Your task to perform on an android device: Open calendar and show me the fourth week of next month Image 0: 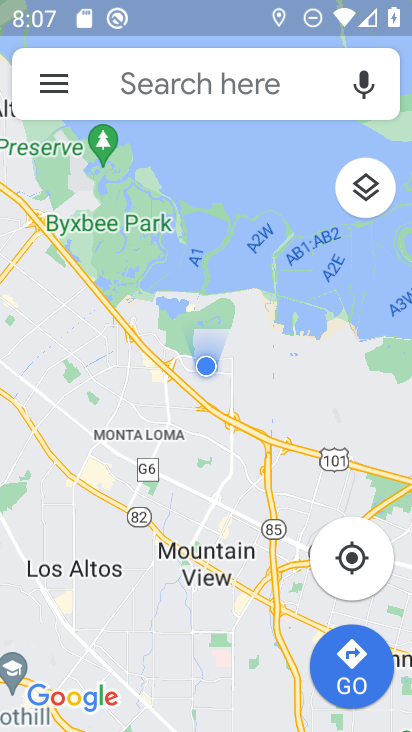
Step 0: press back button
Your task to perform on an android device: Open calendar and show me the fourth week of next month Image 1: 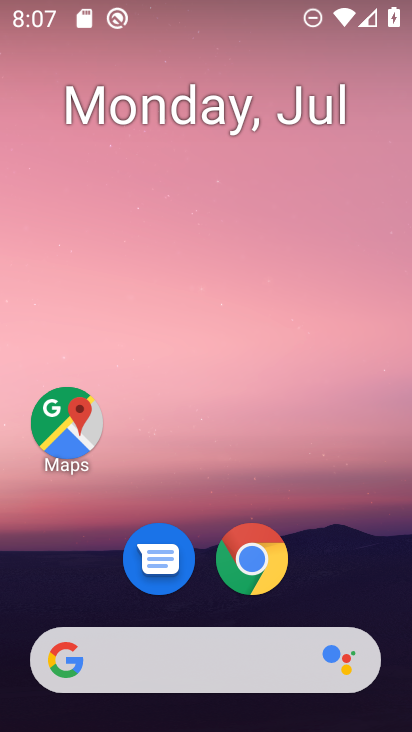
Step 1: drag from (88, 519) to (238, 2)
Your task to perform on an android device: Open calendar and show me the fourth week of next month Image 2: 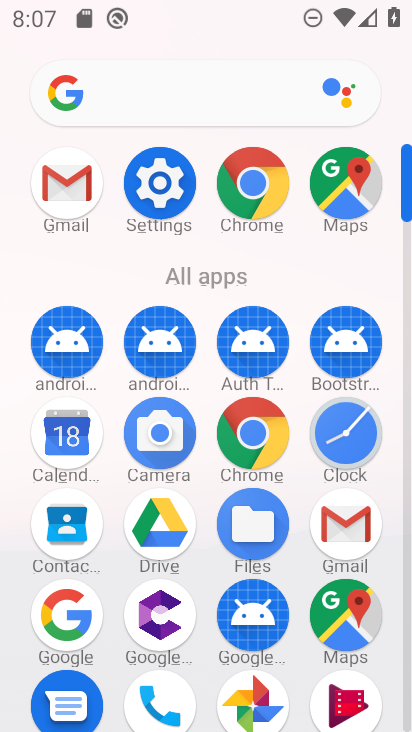
Step 2: click (77, 426)
Your task to perform on an android device: Open calendar and show me the fourth week of next month Image 3: 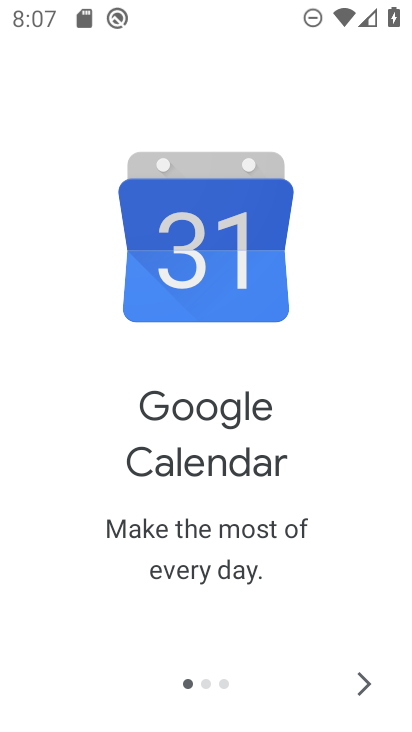
Step 3: click (367, 695)
Your task to perform on an android device: Open calendar and show me the fourth week of next month Image 4: 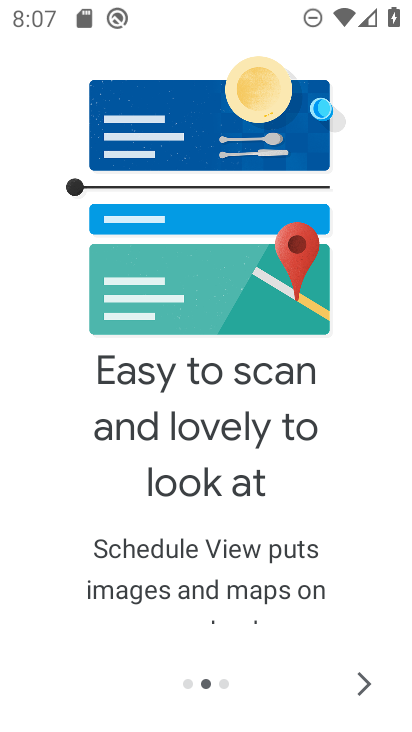
Step 4: click (366, 694)
Your task to perform on an android device: Open calendar and show me the fourth week of next month Image 5: 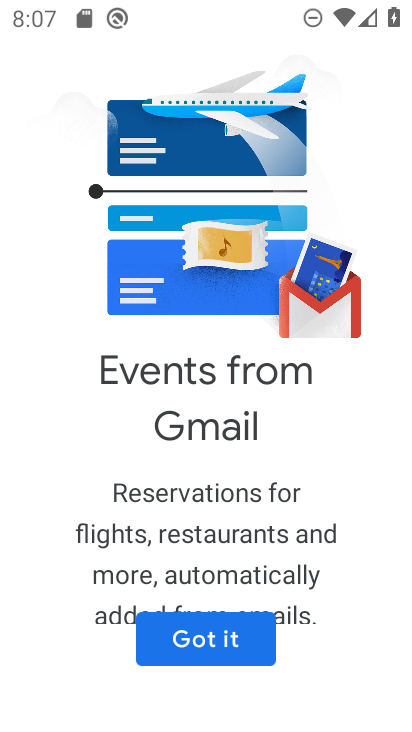
Step 5: click (248, 643)
Your task to perform on an android device: Open calendar and show me the fourth week of next month Image 6: 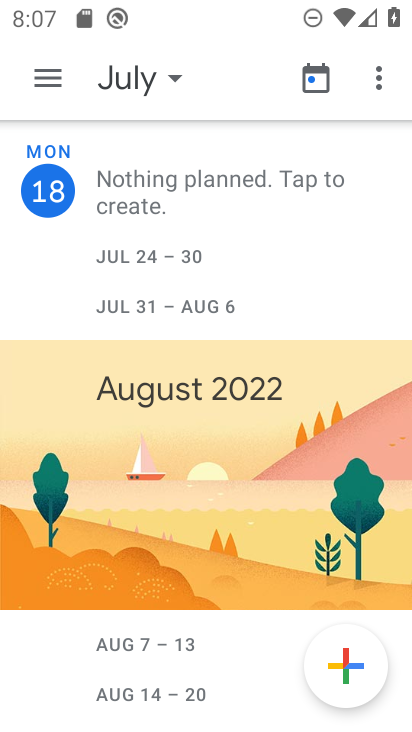
Step 6: click (148, 86)
Your task to perform on an android device: Open calendar and show me the fourth week of next month Image 7: 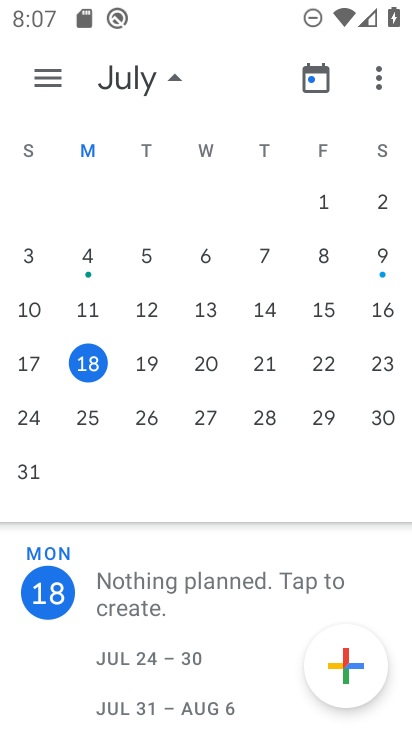
Step 7: drag from (368, 331) to (8, 321)
Your task to perform on an android device: Open calendar and show me the fourth week of next month Image 8: 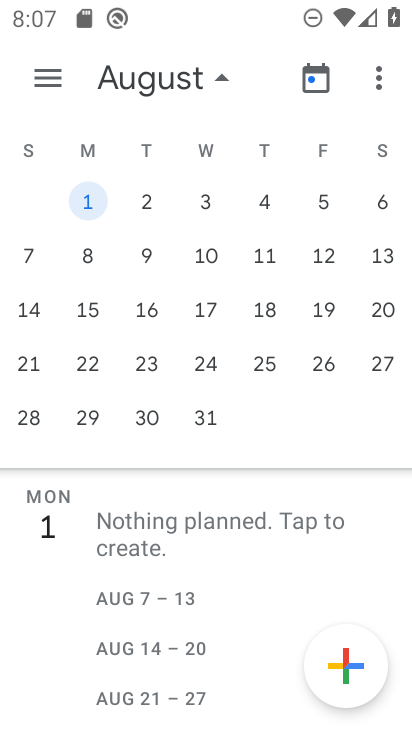
Step 8: click (88, 363)
Your task to perform on an android device: Open calendar and show me the fourth week of next month Image 9: 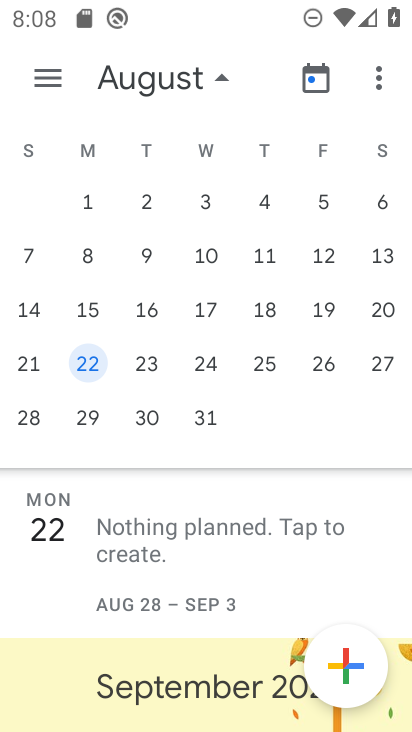
Step 9: task complete